Your task to perform on an android device: Go to wifi settings Image 0: 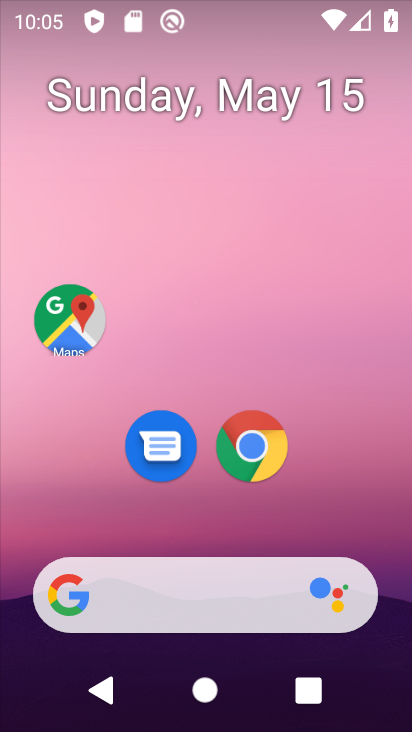
Step 0: drag from (326, 503) to (328, 87)
Your task to perform on an android device: Go to wifi settings Image 1: 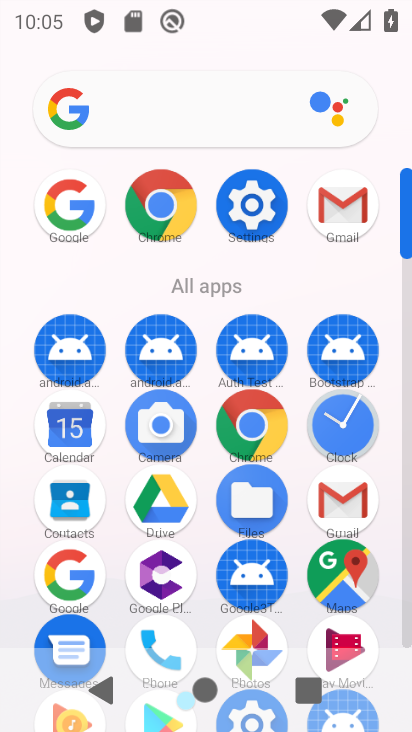
Step 1: click (239, 226)
Your task to perform on an android device: Go to wifi settings Image 2: 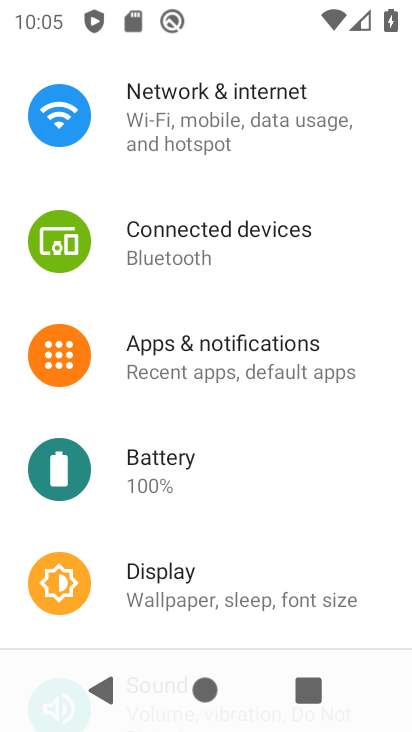
Step 2: click (252, 131)
Your task to perform on an android device: Go to wifi settings Image 3: 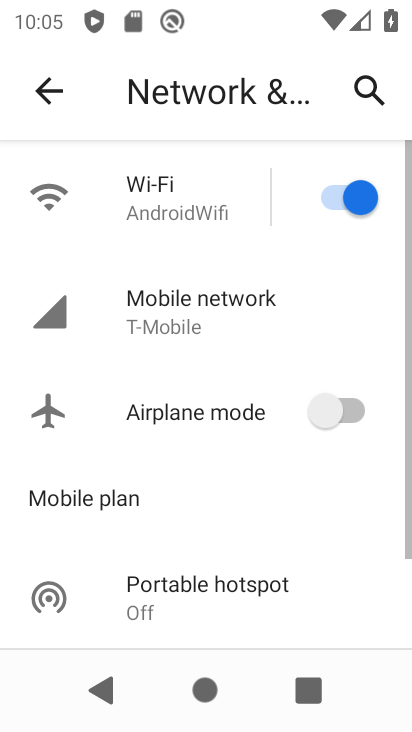
Step 3: click (135, 219)
Your task to perform on an android device: Go to wifi settings Image 4: 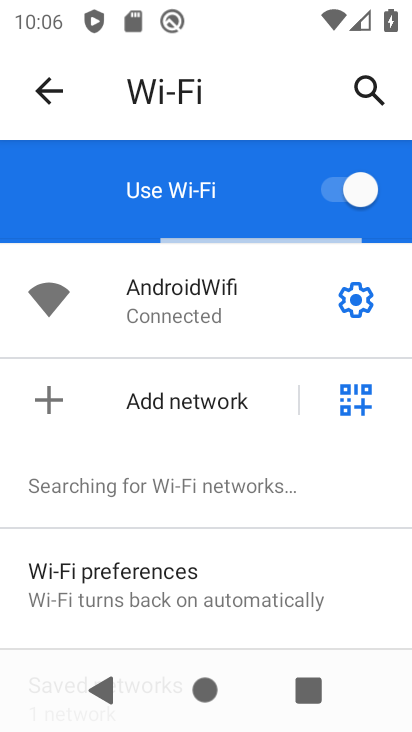
Step 4: task complete